Your task to perform on an android device: Add dell alienware to the cart on amazon.com, then select checkout. Image 0: 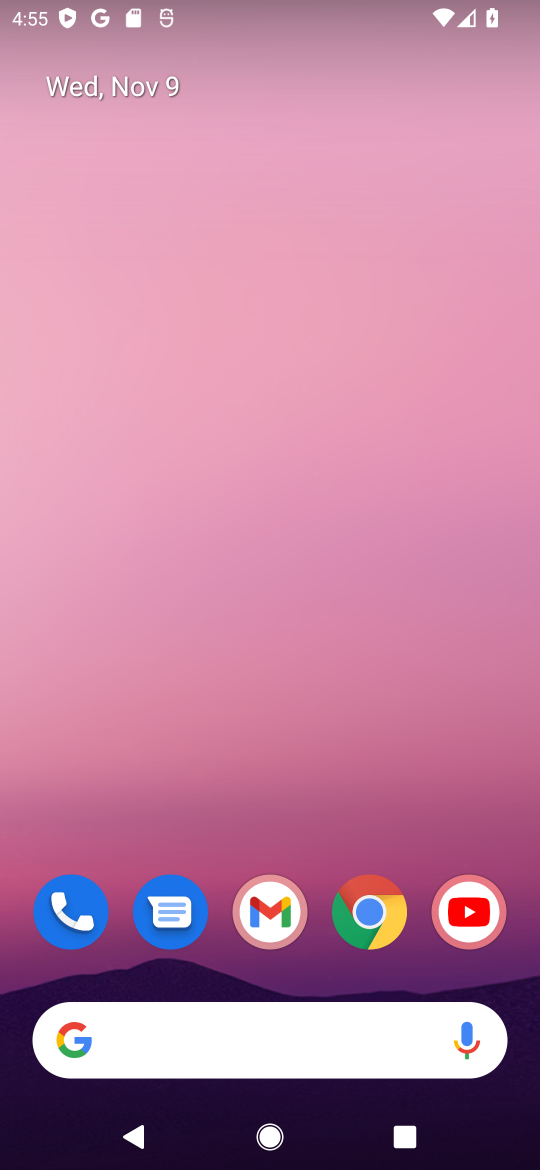
Step 0: click (372, 913)
Your task to perform on an android device: Add dell alienware to the cart on amazon.com, then select checkout. Image 1: 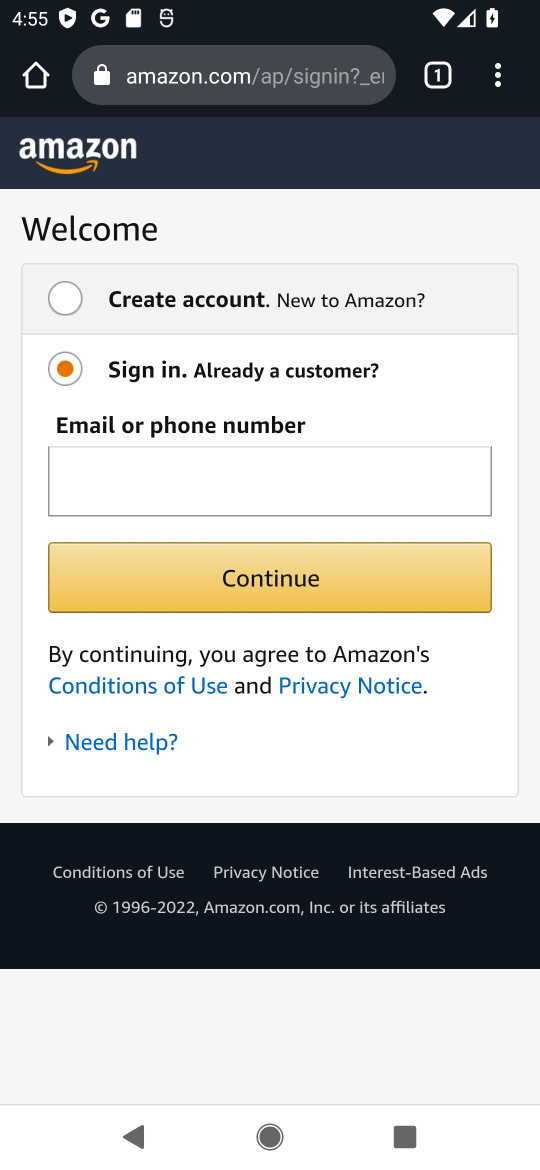
Step 1: click (279, 71)
Your task to perform on an android device: Add dell alienware to the cart on amazon.com, then select checkout. Image 2: 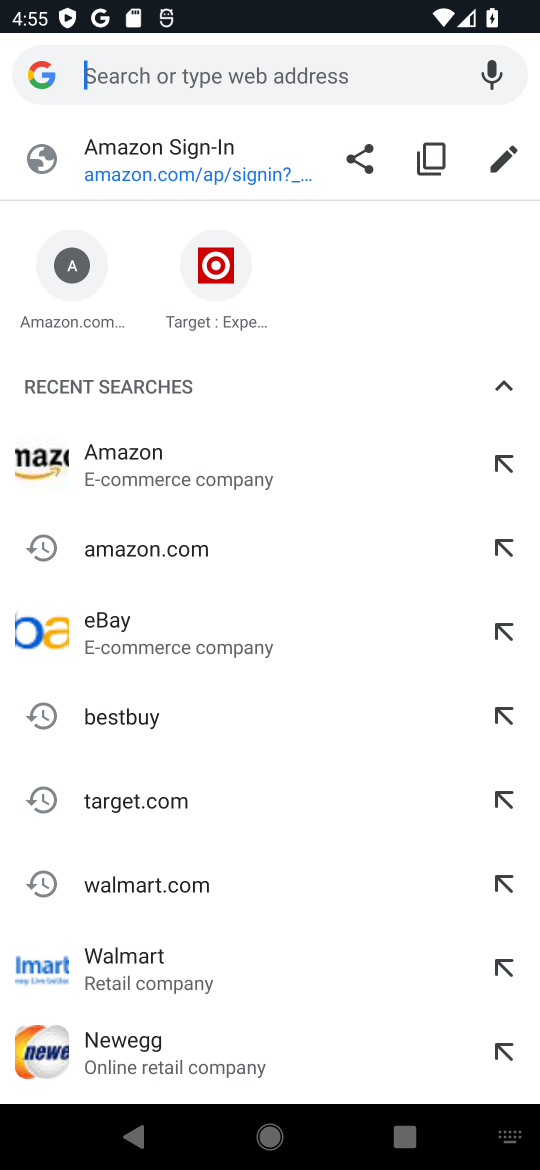
Step 2: type "amazon.com"
Your task to perform on an android device: Add dell alienware to the cart on amazon.com, then select checkout. Image 3: 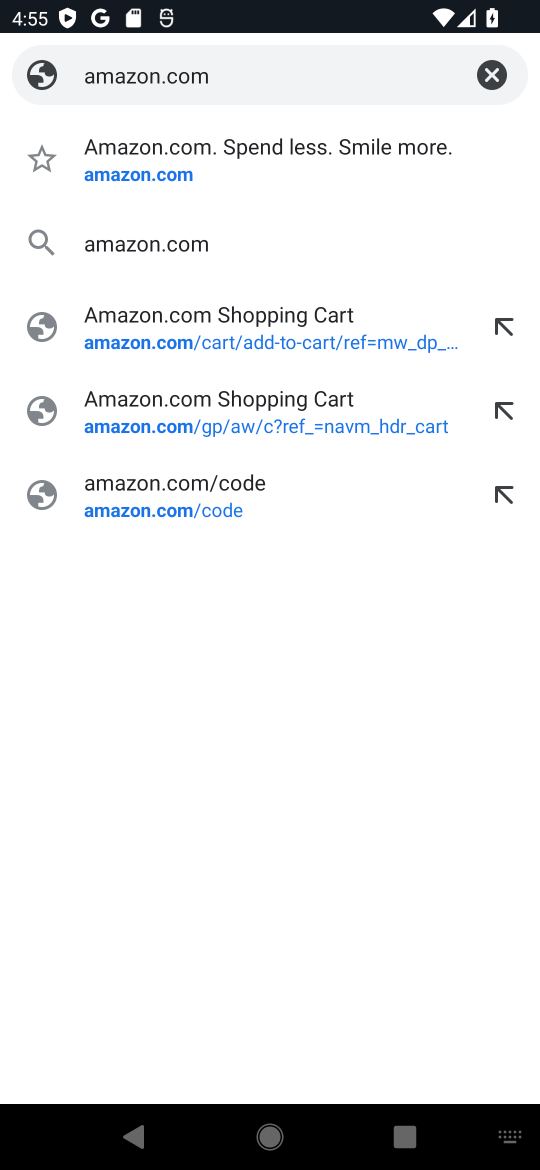
Step 3: click (154, 240)
Your task to perform on an android device: Add dell alienware to the cart on amazon.com, then select checkout. Image 4: 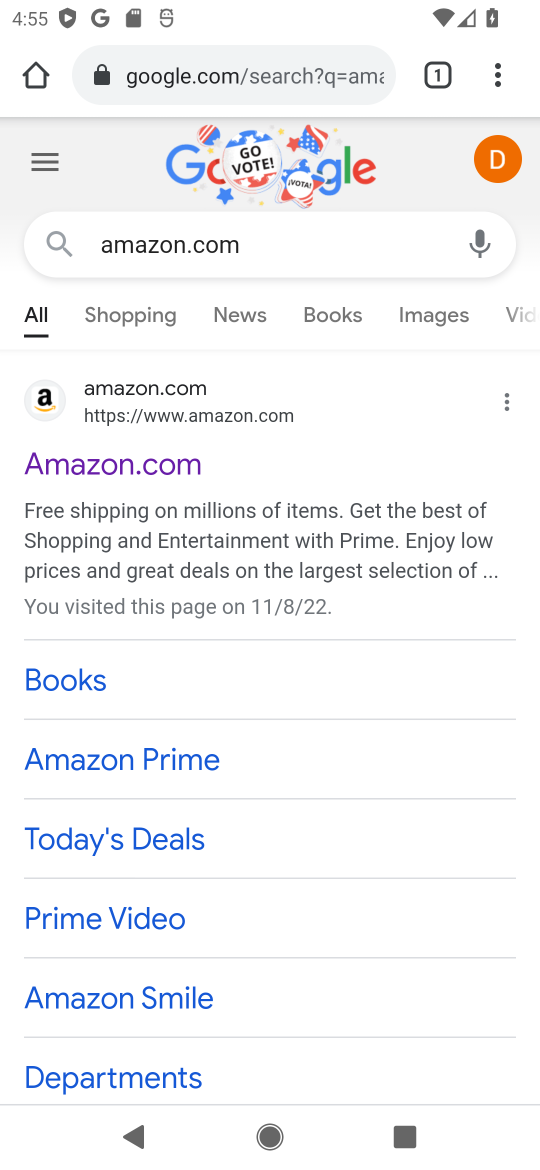
Step 4: click (181, 479)
Your task to perform on an android device: Add dell alienware to the cart on amazon.com, then select checkout. Image 5: 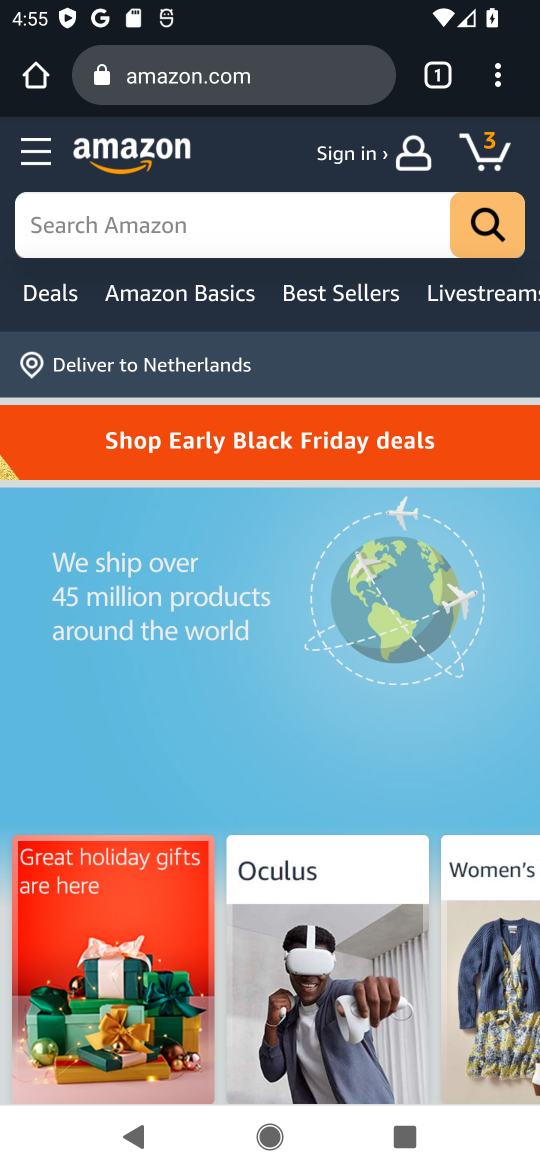
Step 5: click (327, 215)
Your task to perform on an android device: Add dell alienware to the cart on amazon.com, then select checkout. Image 6: 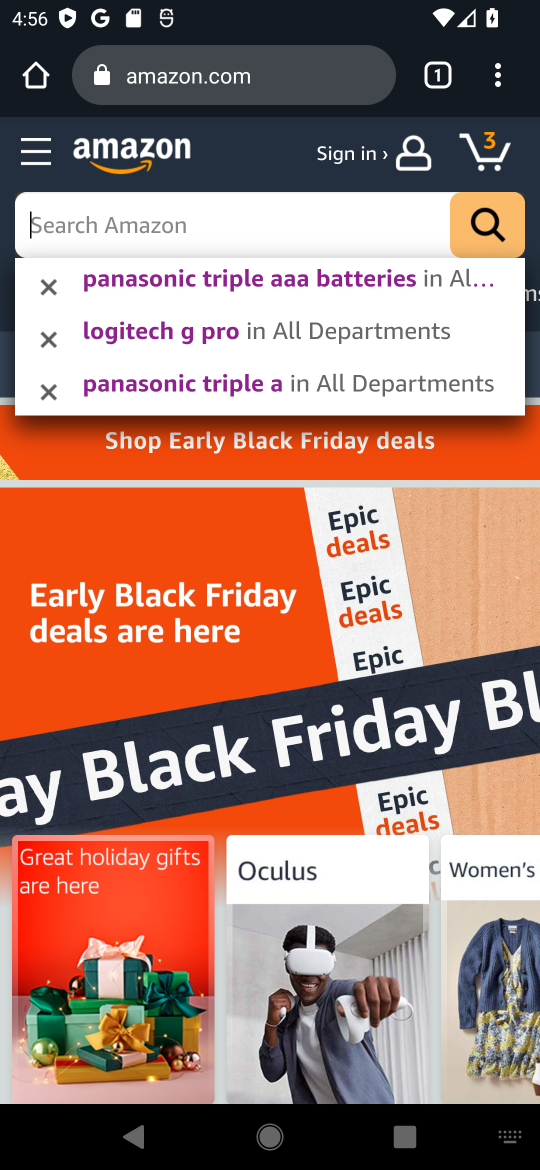
Step 6: type "dell alienware"
Your task to perform on an android device: Add dell alienware to the cart on amazon.com, then select checkout. Image 7: 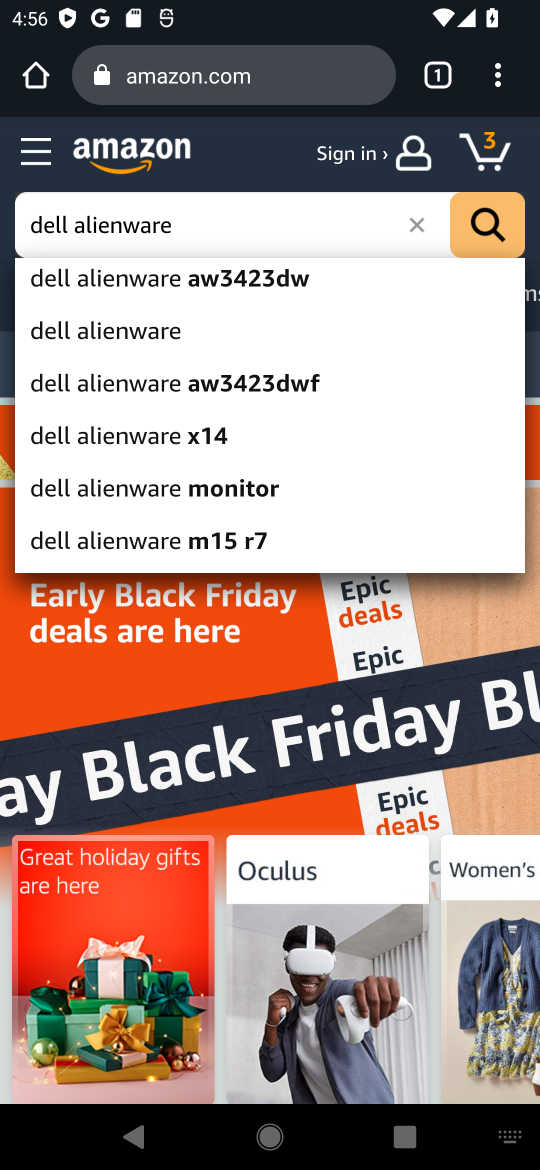
Step 7: click (166, 341)
Your task to perform on an android device: Add dell alienware to the cart on amazon.com, then select checkout. Image 8: 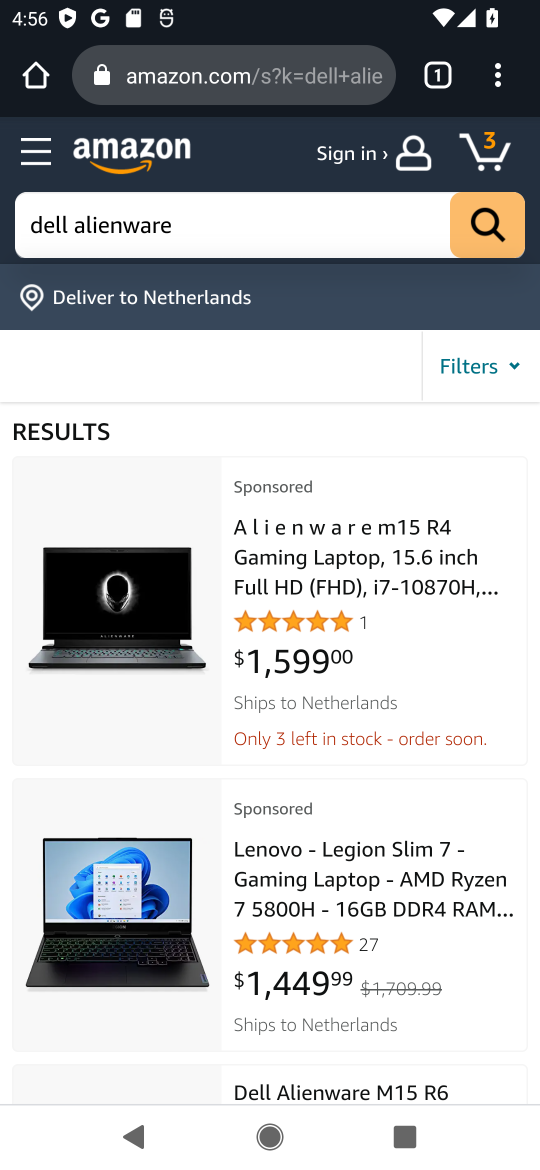
Step 8: drag from (375, 724) to (360, 457)
Your task to perform on an android device: Add dell alienware to the cart on amazon.com, then select checkout. Image 9: 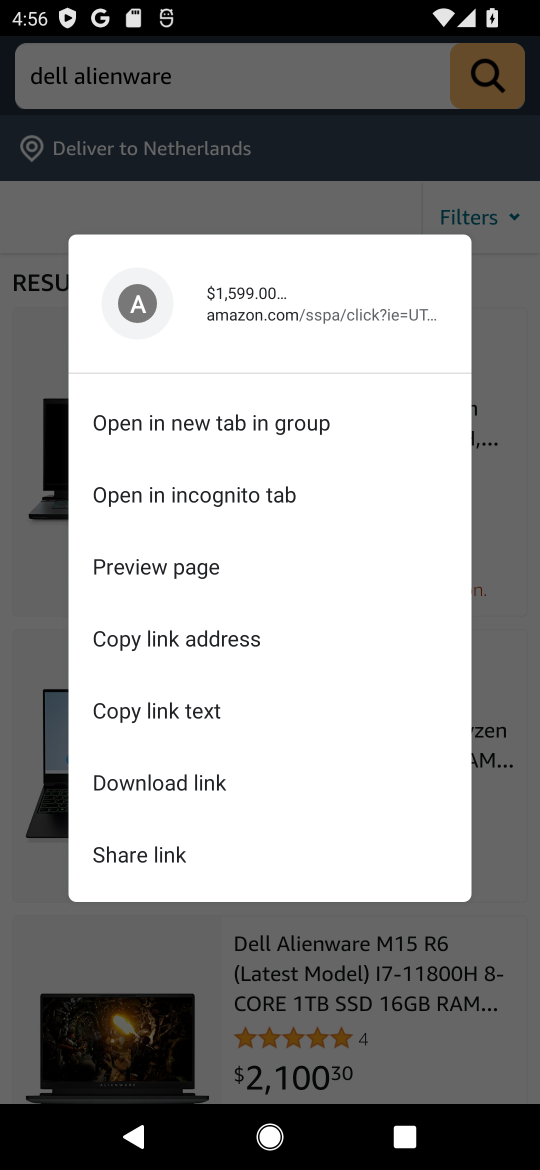
Step 9: click (350, 201)
Your task to perform on an android device: Add dell alienware to the cart on amazon.com, then select checkout. Image 10: 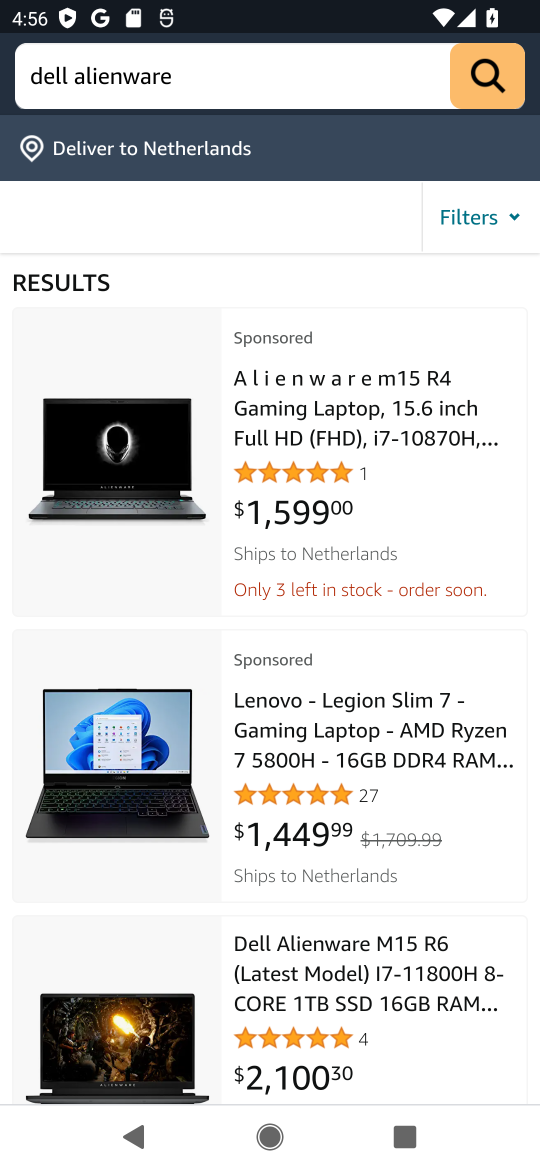
Step 10: click (416, 943)
Your task to perform on an android device: Add dell alienware to the cart on amazon.com, then select checkout. Image 11: 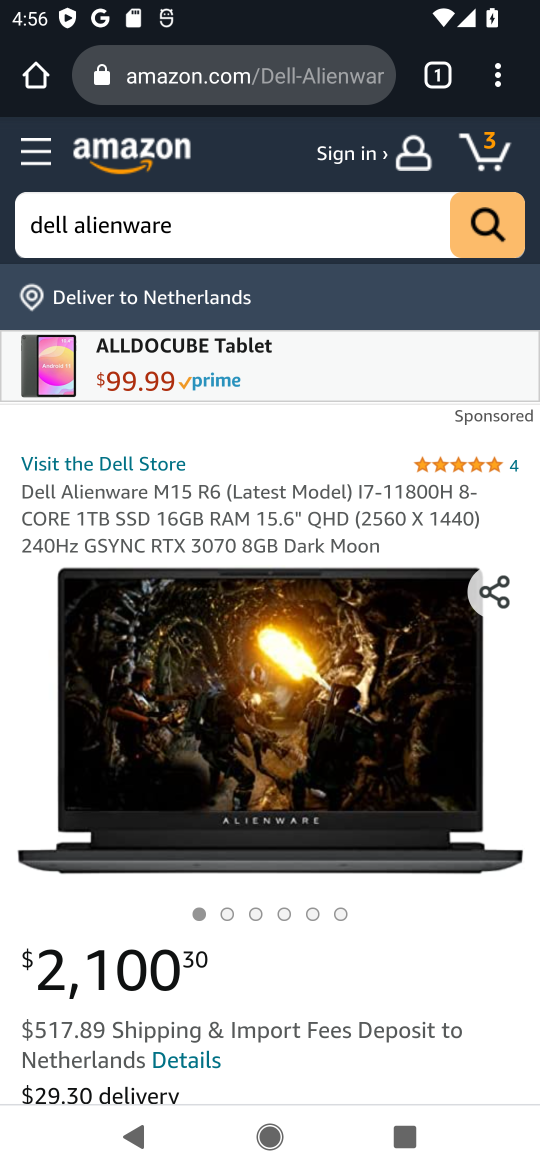
Step 11: drag from (267, 978) to (325, 381)
Your task to perform on an android device: Add dell alienware to the cart on amazon.com, then select checkout. Image 12: 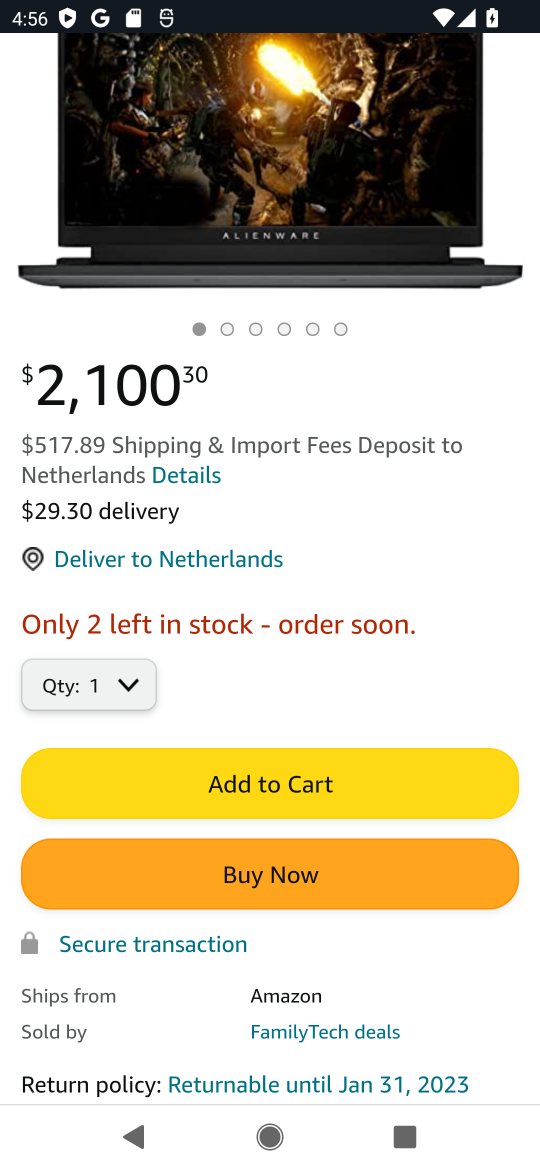
Step 12: click (309, 789)
Your task to perform on an android device: Add dell alienware to the cart on amazon.com, then select checkout. Image 13: 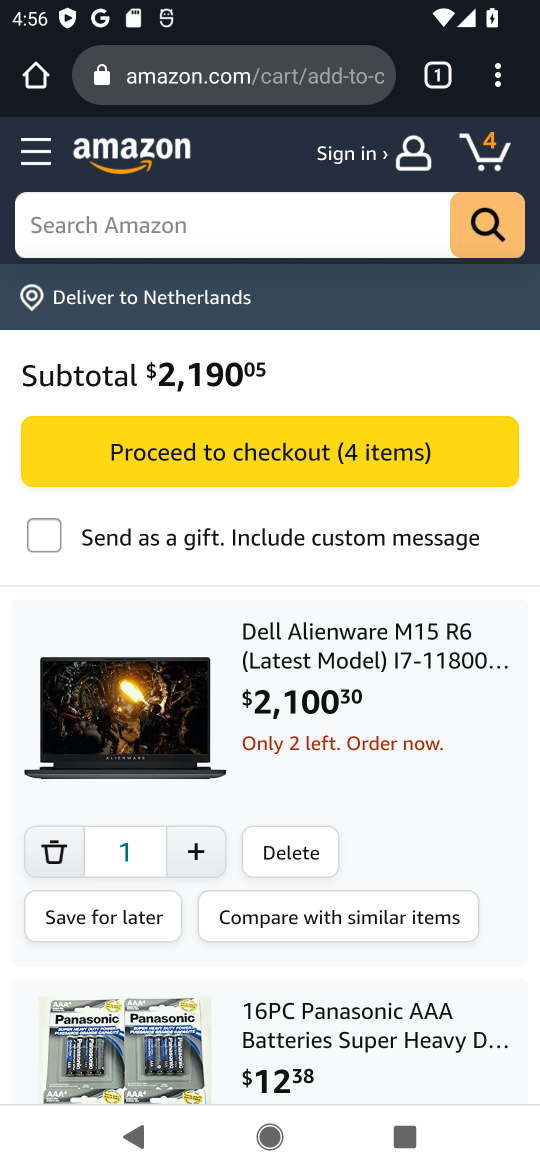
Step 13: click (389, 473)
Your task to perform on an android device: Add dell alienware to the cart on amazon.com, then select checkout. Image 14: 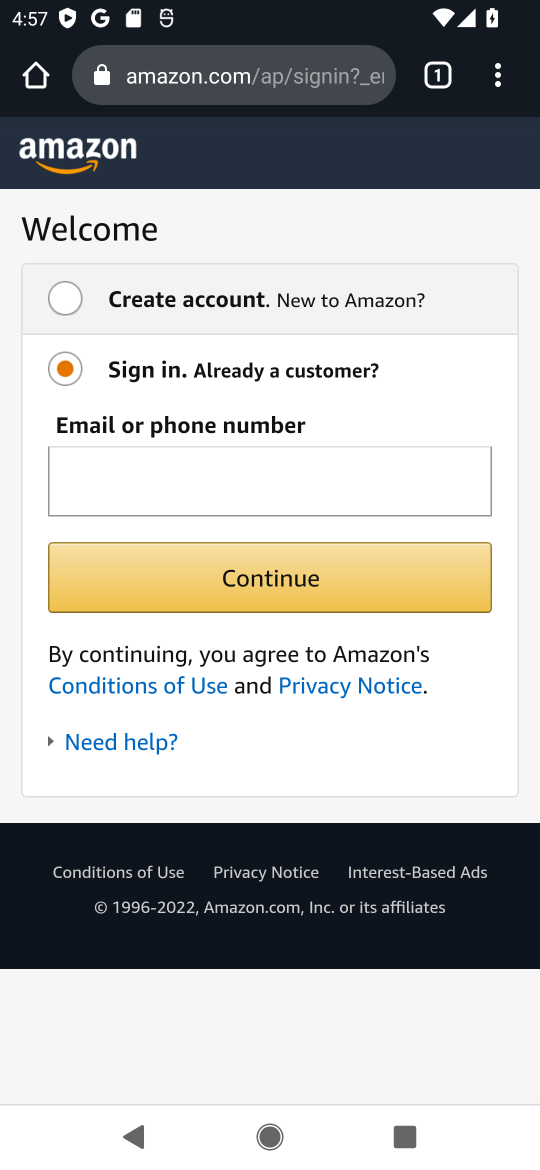
Step 14: task complete